Your task to perform on an android device: turn off smart reply in the gmail app Image 0: 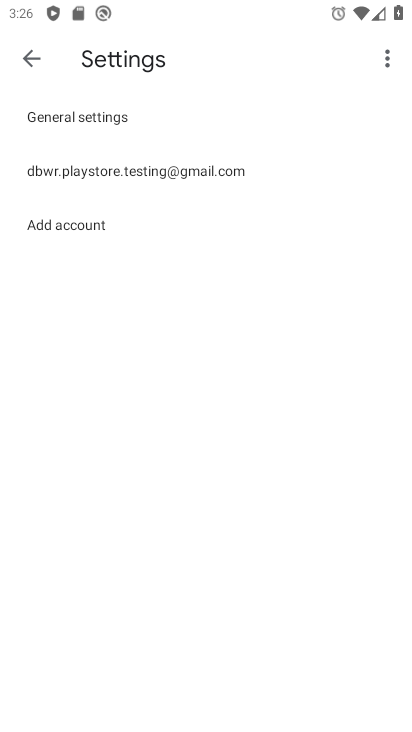
Step 0: click (199, 161)
Your task to perform on an android device: turn off smart reply in the gmail app Image 1: 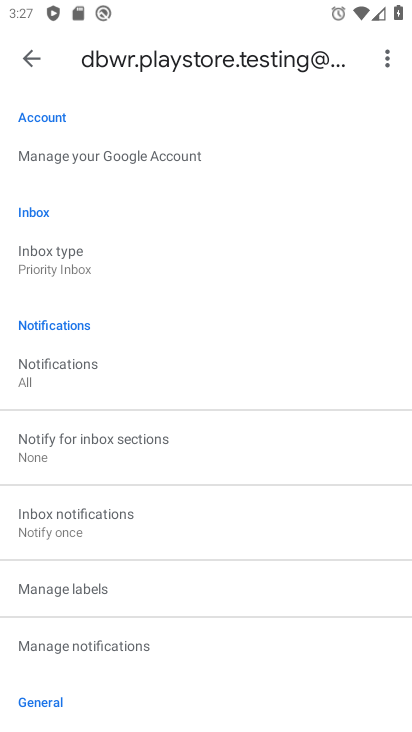
Step 1: drag from (189, 634) to (216, 241)
Your task to perform on an android device: turn off smart reply in the gmail app Image 2: 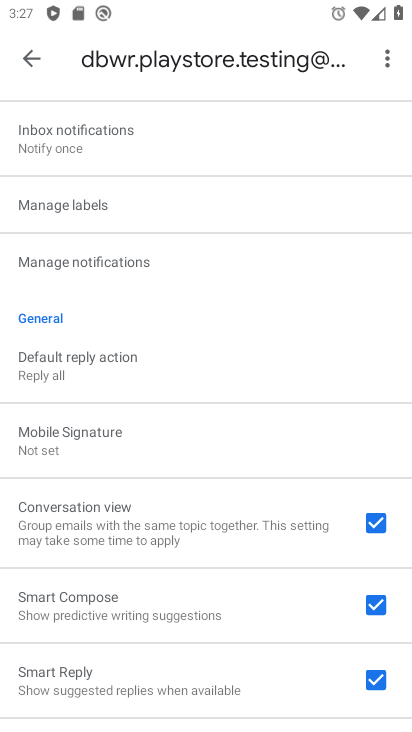
Step 2: drag from (155, 629) to (175, 331)
Your task to perform on an android device: turn off smart reply in the gmail app Image 3: 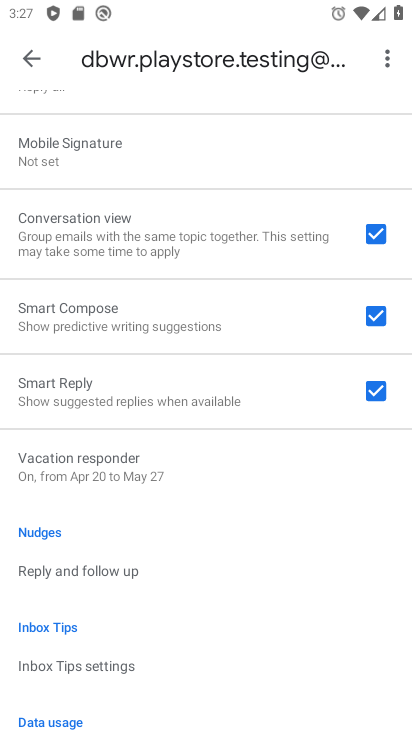
Step 3: click (379, 386)
Your task to perform on an android device: turn off smart reply in the gmail app Image 4: 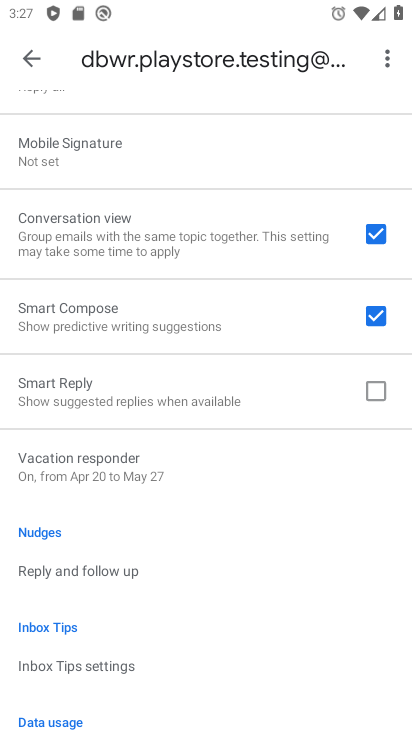
Step 4: task complete